Your task to perform on an android device: Open the map Image 0: 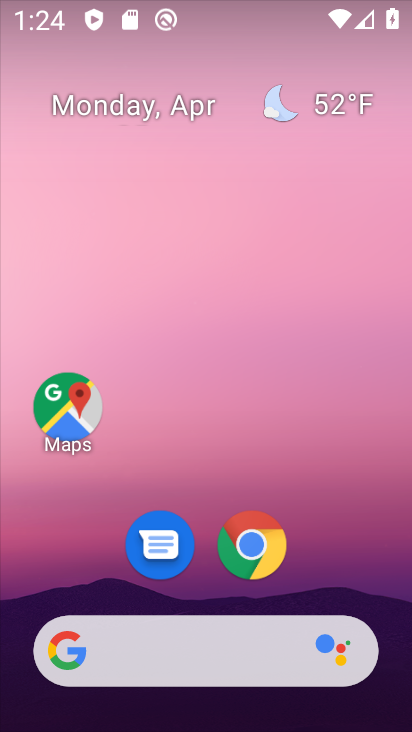
Step 0: drag from (213, 706) to (215, 121)
Your task to perform on an android device: Open the map Image 1: 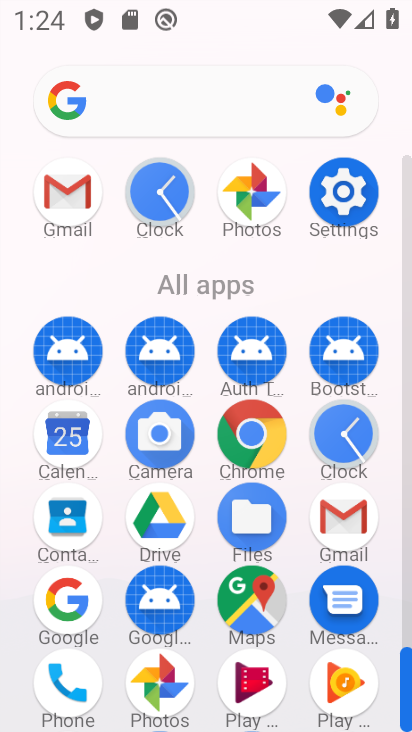
Step 1: click (247, 594)
Your task to perform on an android device: Open the map Image 2: 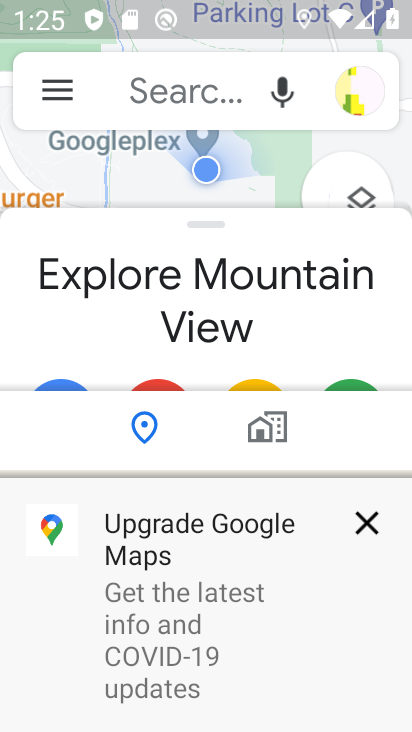
Step 2: task complete